Your task to perform on an android device: What's the weather going to be tomorrow? Image 0: 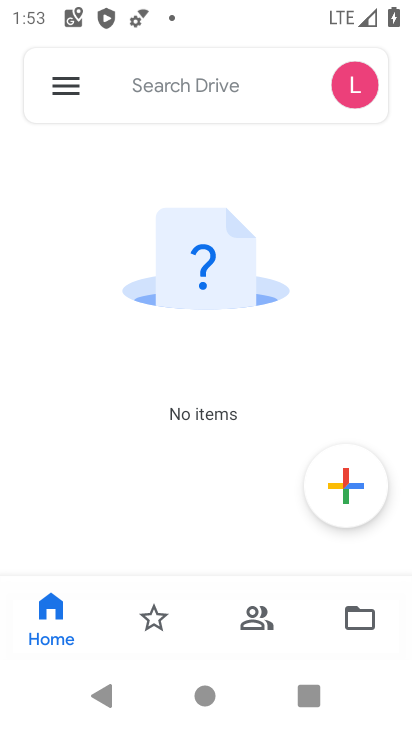
Step 0: press home button
Your task to perform on an android device: What's the weather going to be tomorrow? Image 1: 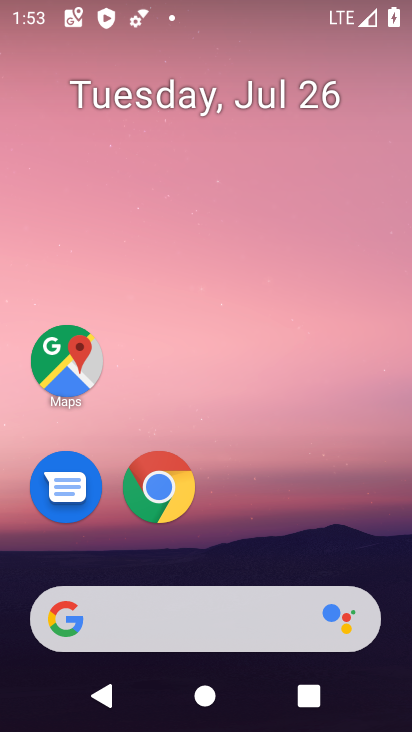
Step 1: drag from (297, 606) to (356, 12)
Your task to perform on an android device: What's the weather going to be tomorrow? Image 2: 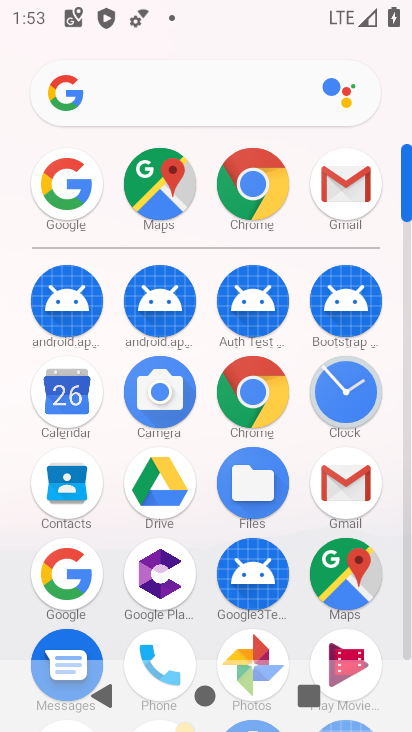
Step 2: click (79, 589)
Your task to perform on an android device: What's the weather going to be tomorrow? Image 3: 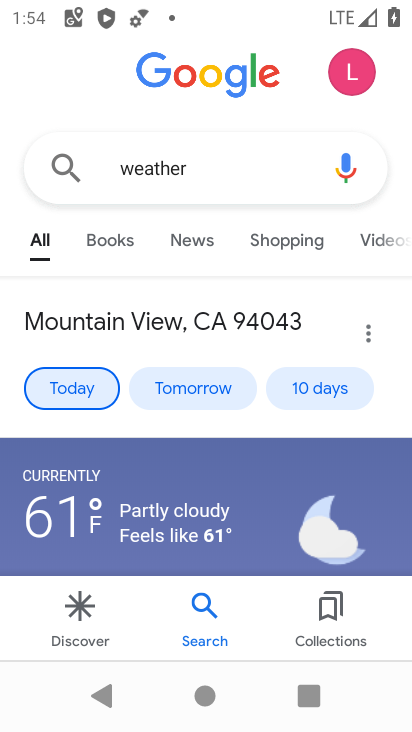
Step 3: click (181, 383)
Your task to perform on an android device: What's the weather going to be tomorrow? Image 4: 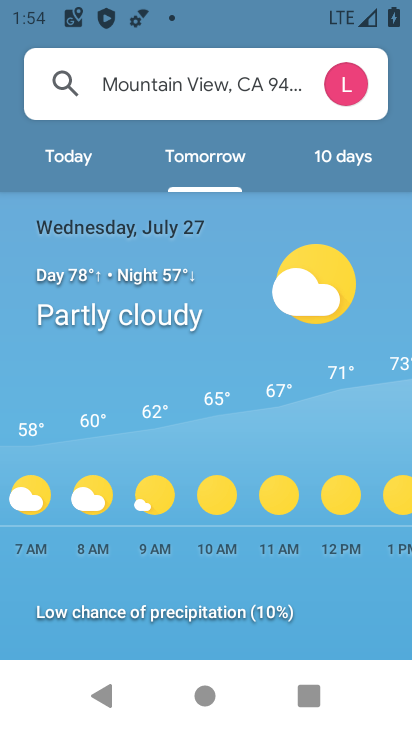
Step 4: task complete